Your task to perform on an android device: all mails in gmail Image 0: 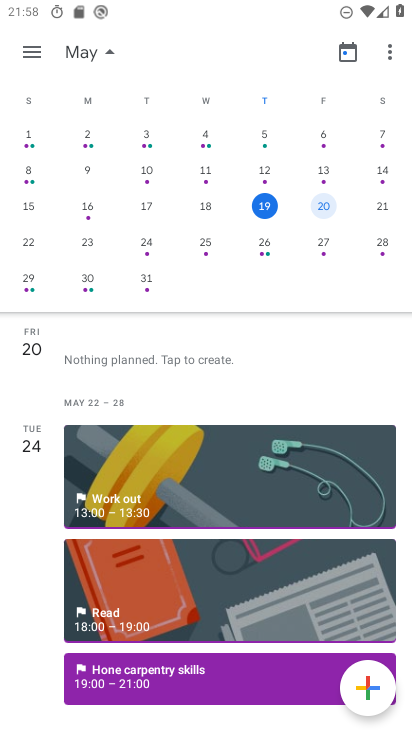
Step 0: press home button
Your task to perform on an android device: all mails in gmail Image 1: 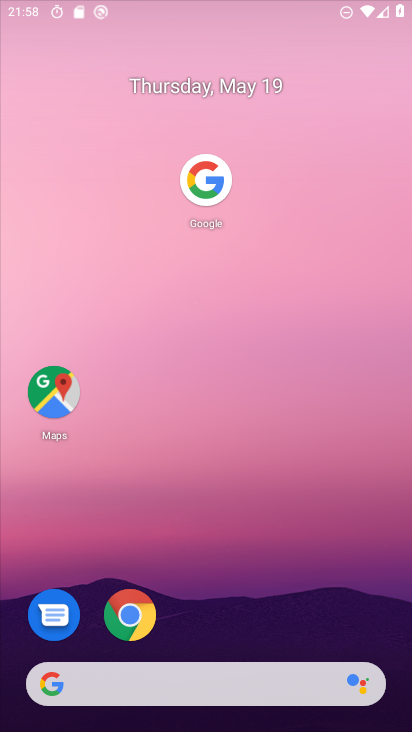
Step 1: drag from (227, 600) to (351, 25)
Your task to perform on an android device: all mails in gmail Image 2: 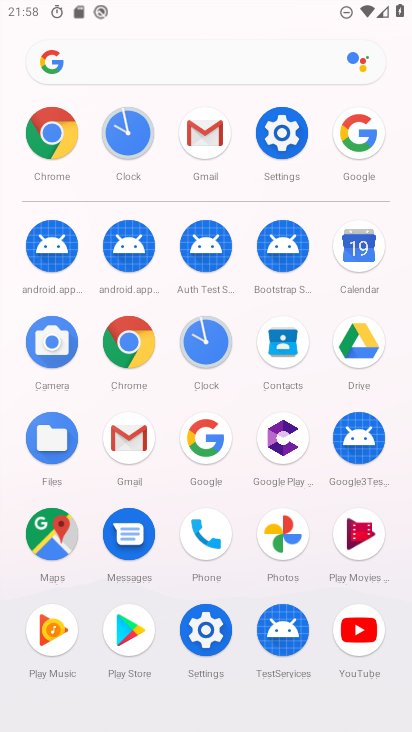
Step 2: click (209, 138)
Your task to perform on an android device: all mails in gmail Image 3: 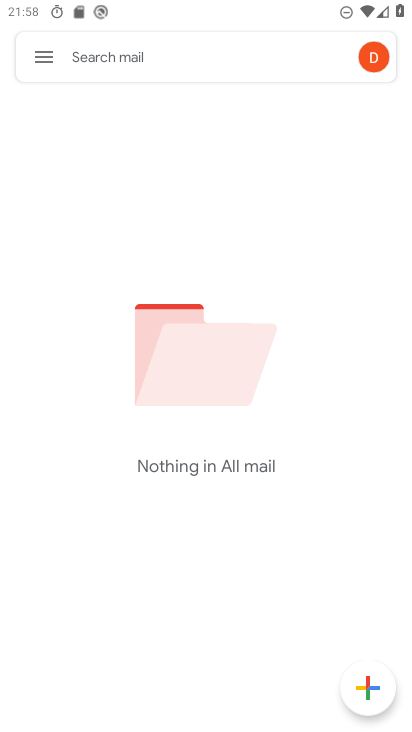
Step 3: click (36, 62)
Your task to perform on an android device: all mails in gmail Image 4: 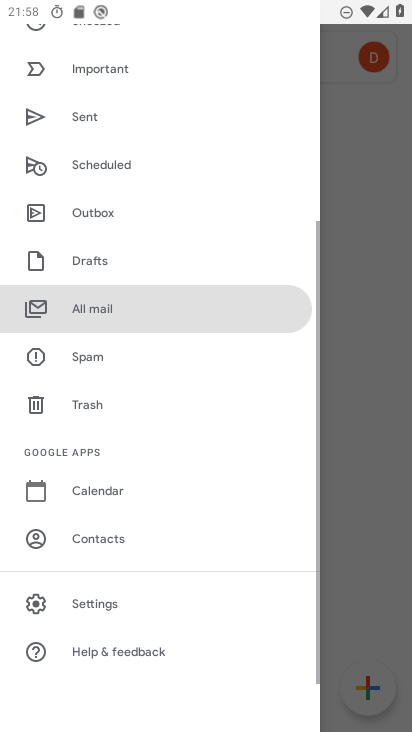
Step 4: click (373, 184)
Your task to perform on an android device: all mails in gmail Image 5: 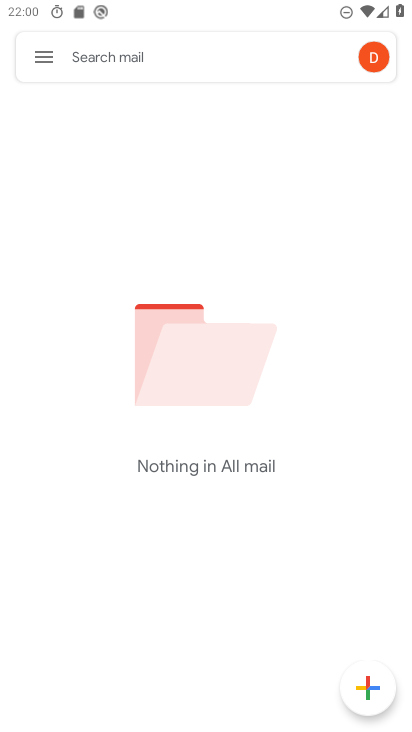
Step 5: task complete